Your task to perform on an android device: delete the emails in spam in the gmail app Image 0: 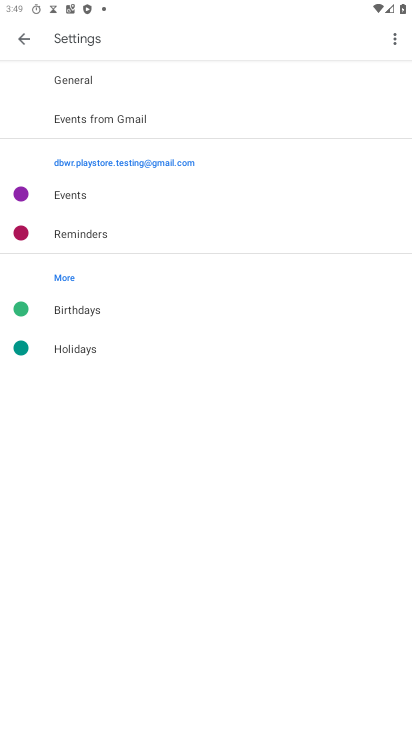
Step 0: press home button
Your task to perform on an android device: delete the emails in spam in the gmail app Image 1: 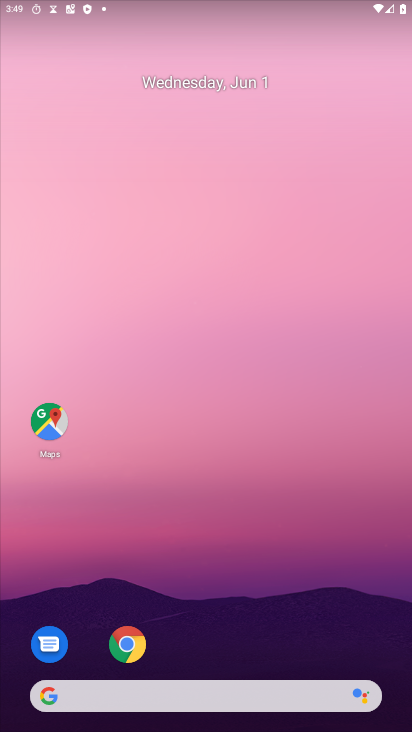
Step 1: drag from (299, 617) to (318, 86)
Your task to perform on an android device: delete the emails in spam in the gmail app Image 2: 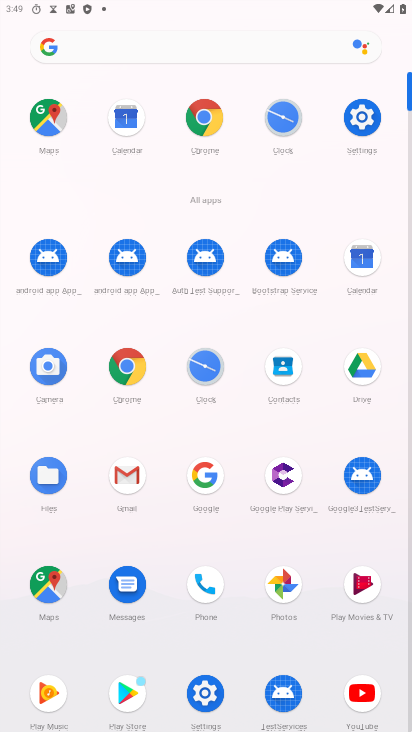
Step 2: click (131, 482)
Your task to perform on an android device: delete the emails in spam in the gmail app Image 3: 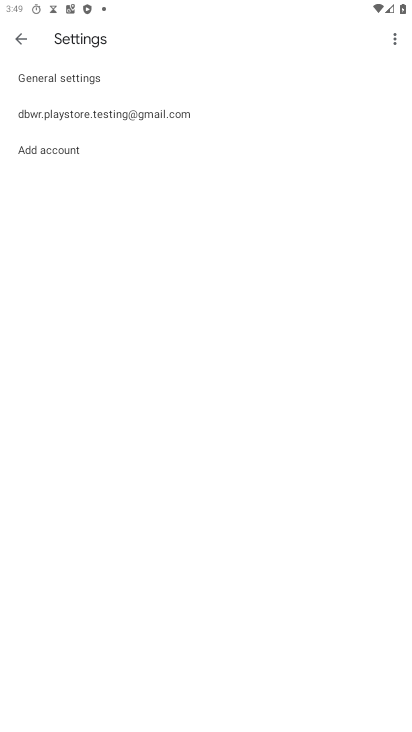
Step 3: click (117, 117)
Your task to perform on an android device: delete the emails in spam in the gmail app Image 4: 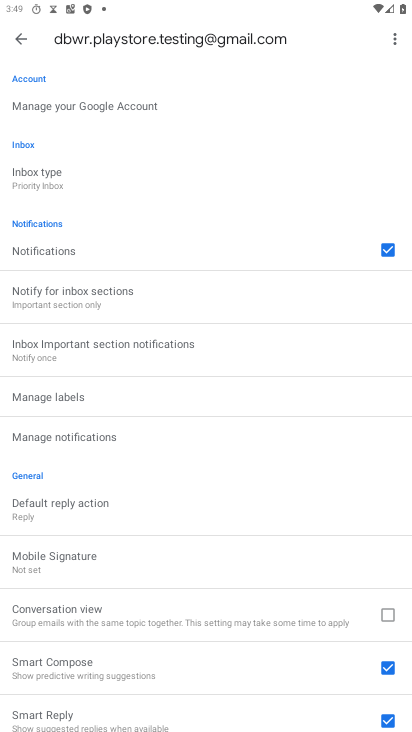
Step 4: click (14, 37)
Your task to perform on an android device: delete the emails in spam in the gmail app Image 5: 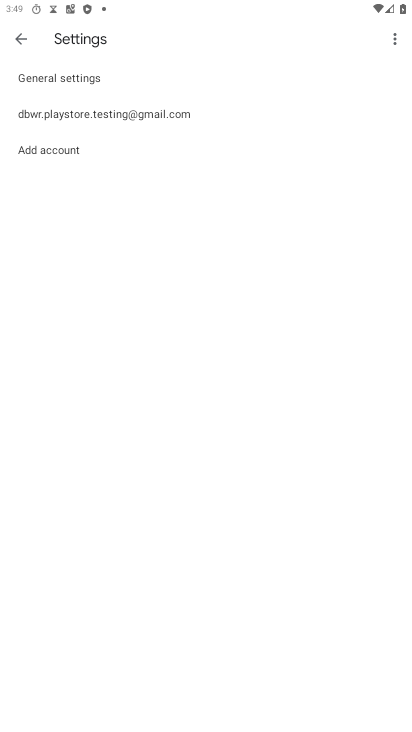
Step 5: click (25, 36)
Your task to perform on an android device: delete the emails in spam in the gmail app Image 6: 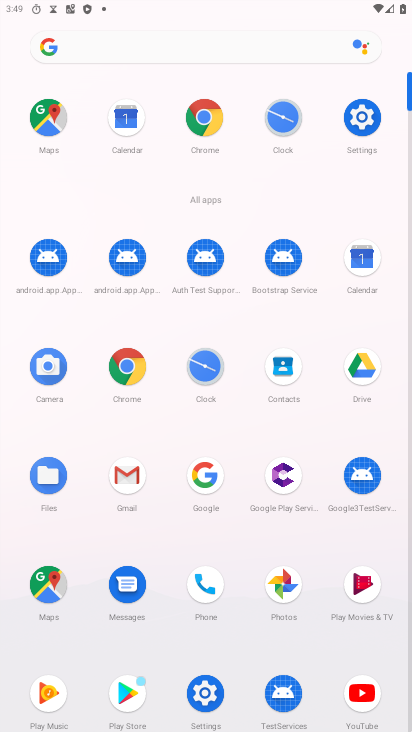
Step 6: click (131, 466)
Your task to perform on an android device: delete the emails in spam in the gmail app Image 7: 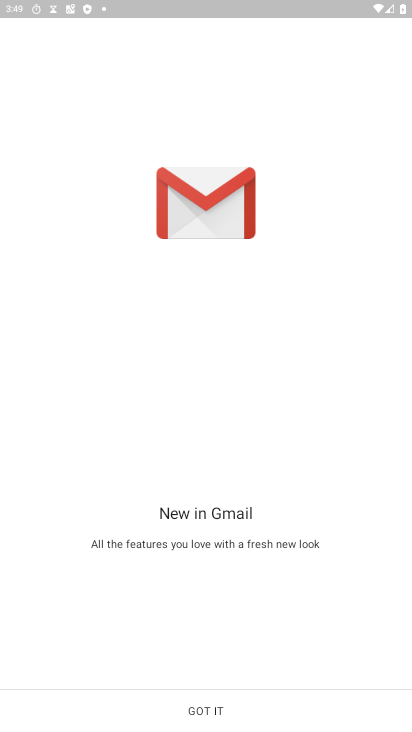
Step 7: click (212, 718)
Your task to perform on an android device: delete the emails in spam in the gmail app Image 8: 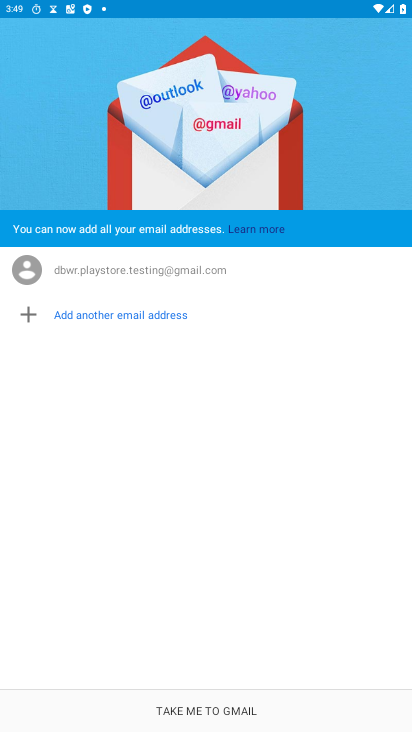
Step 8: click (212, 717)
Your task to perform on an android device: delete the emails in spam in the gmail app Image 9: 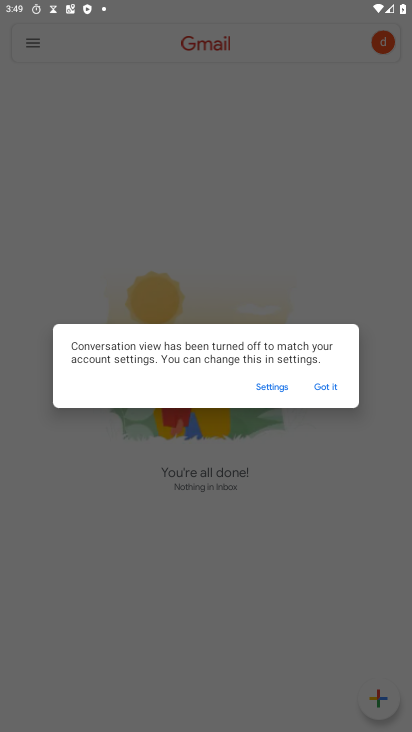
Step 9: click (327, 386)
Your task to perform on an android device: delete the emails in spam in the gmail app Image 10: 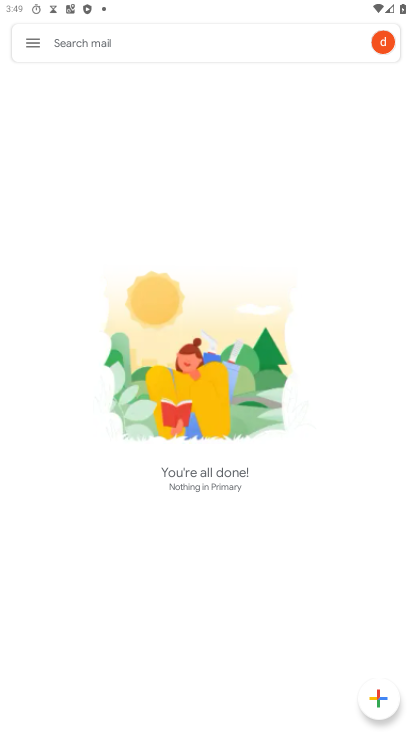
Step 10: click (39, 44)
Your task to perform on an android device: delete the emails in spam in the gmail app Image 11: 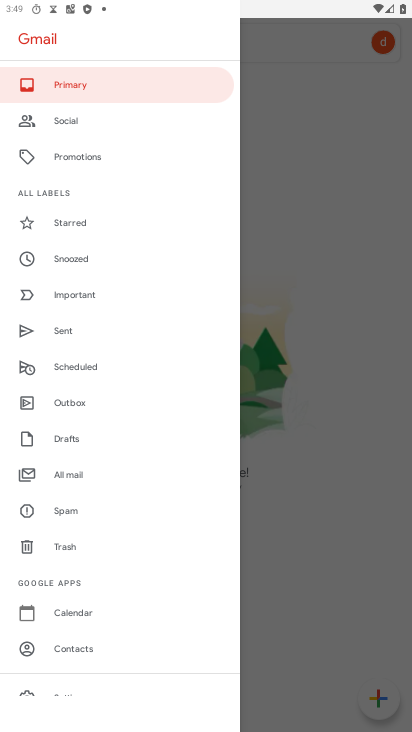
Step 11: click (70, 514)
Your task to perform on an android device: delete the emails in spam in the gmail app Image 12: 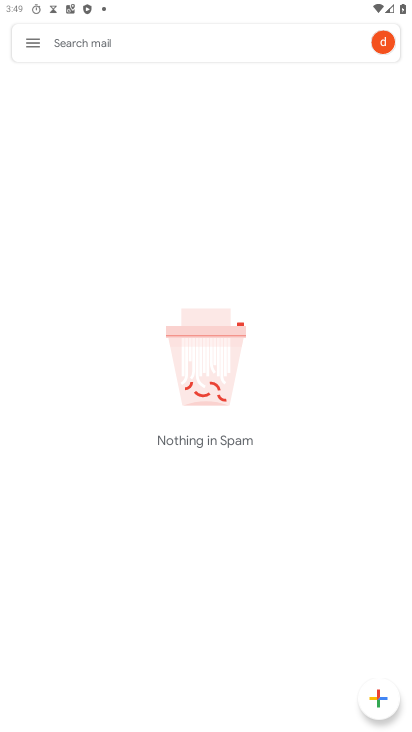
Step 12: task complete